Your task to perform on an android device: turn off sleep mode Image 0: 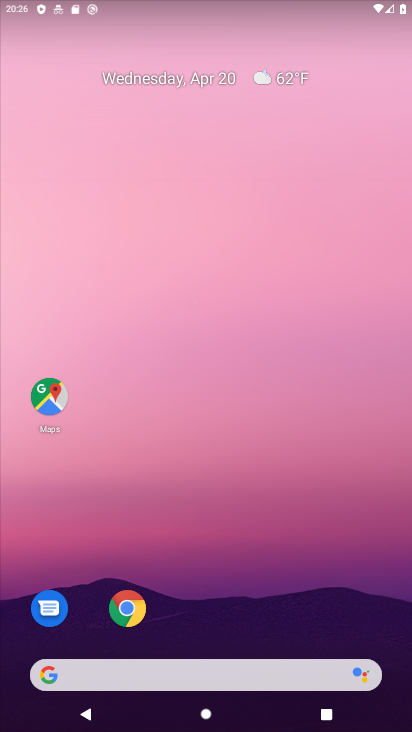
Step 0: drag from (201, 603) to (294, 64)
Your task to perform on an android device: turn off sleep mode Image 1: 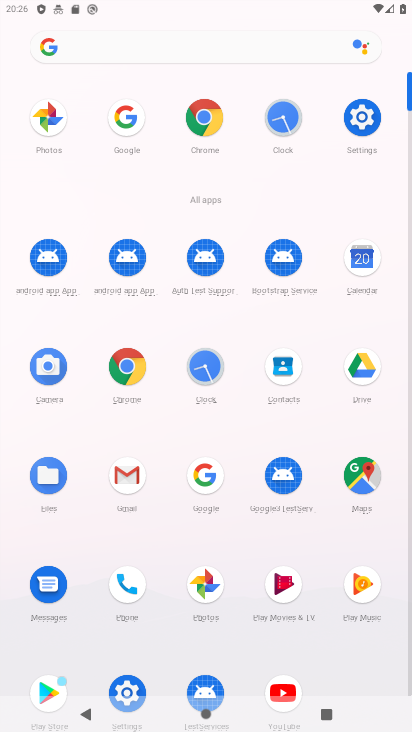
Step 1: click (368, 116)
Your task to perform on an android device: turn off sleep mode Image 2: 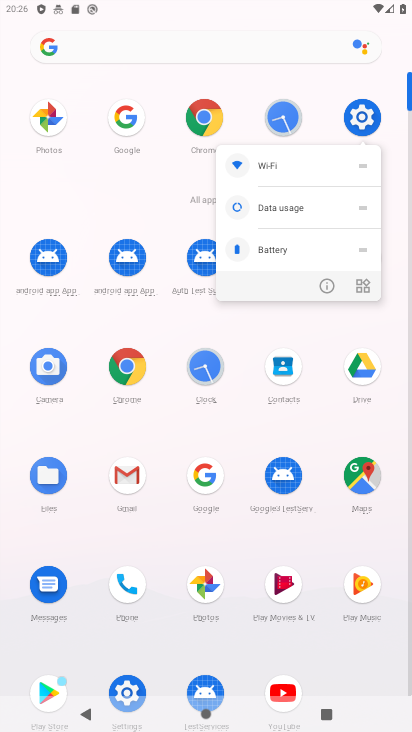
Step 2: click (365, 111)
Your task to perform on an android device: turn off sleep mode Image 3: 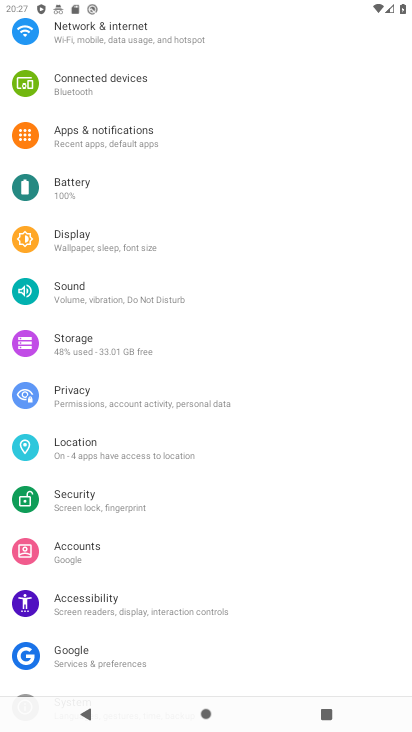
Step 3: drag from (110, 130) to (60, 569)
Your task to perform on an android device: turn off sleep mode Image 4: 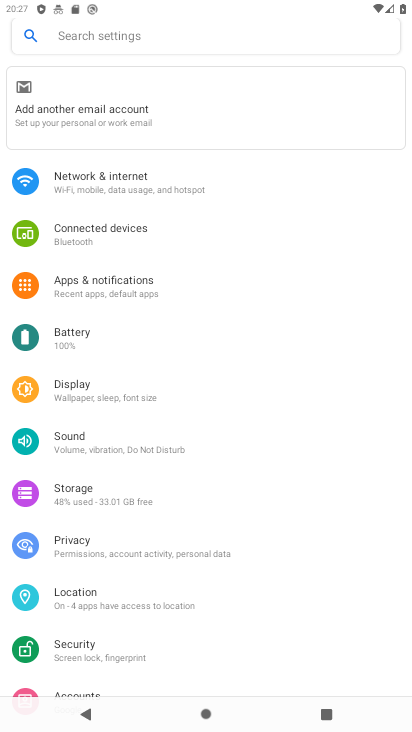
Step 4: click (68, 391)
Your task to perform on an android device: turn off sleep mode Image 5: 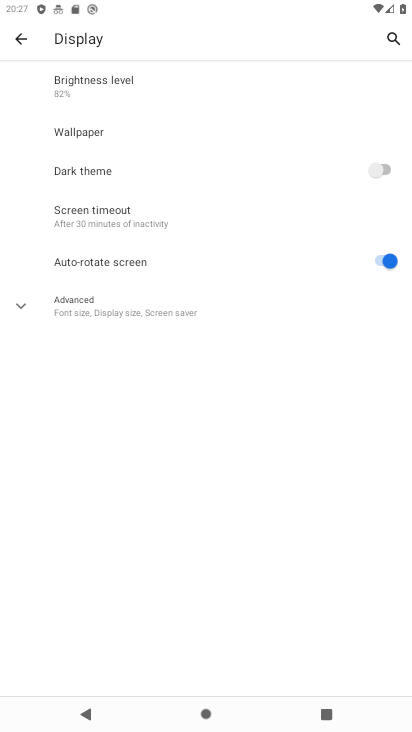
Step 5: task complete